Your task to perform on an android device: turn on translation in the chrome app Image 0: 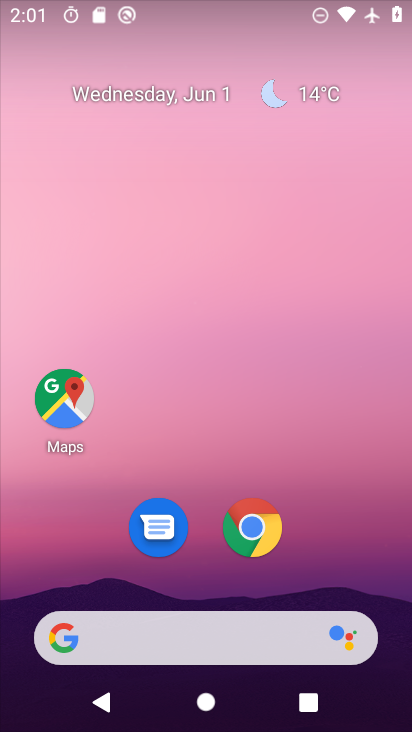
Step 0: drag from (201, 617) to (250, 31)
Your task to perform on an android device: turn on translation in the chrome app Image 1: 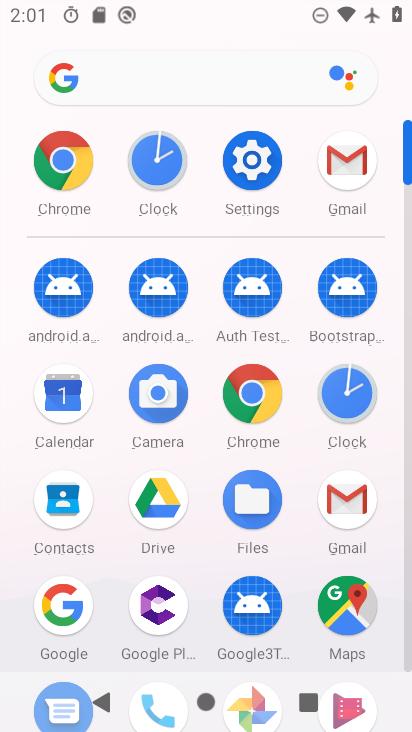
Step 1: click (75, 177)
Your task to perform on an android device: turn on translation in the chrome app Image 2: 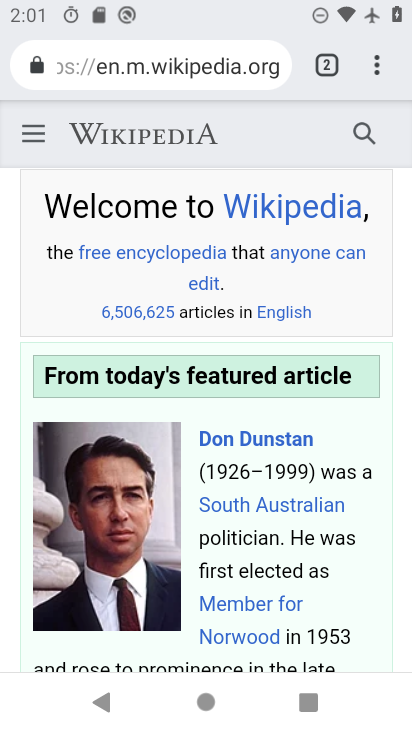
Step 2: click (379, 69)
Your task to perform on an android device: turn on translation in the chrome app Image 3: 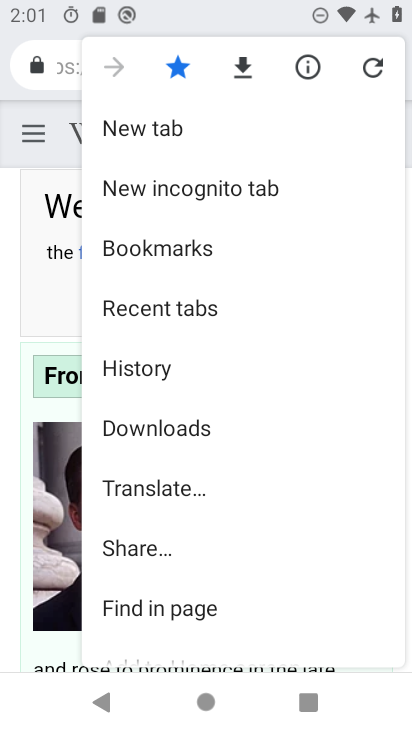
Step 3: click (172, 496)
Your task to perform on an android device: turn on translation in the chrome app Image 4: 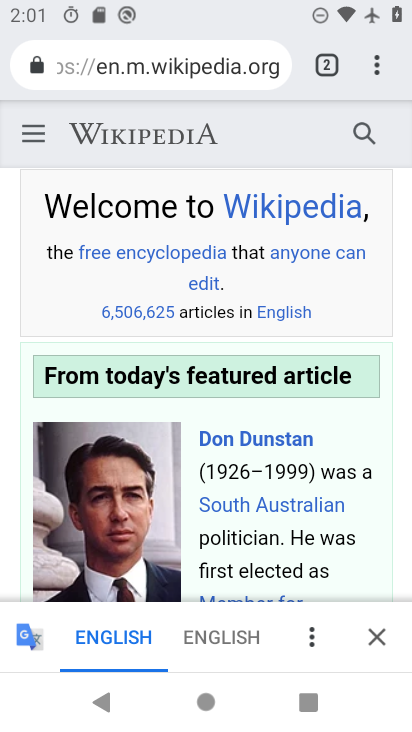
Step 4: click (319, 644)
Your task to perform on an android device: turn on translation in the chrome app Image 5: 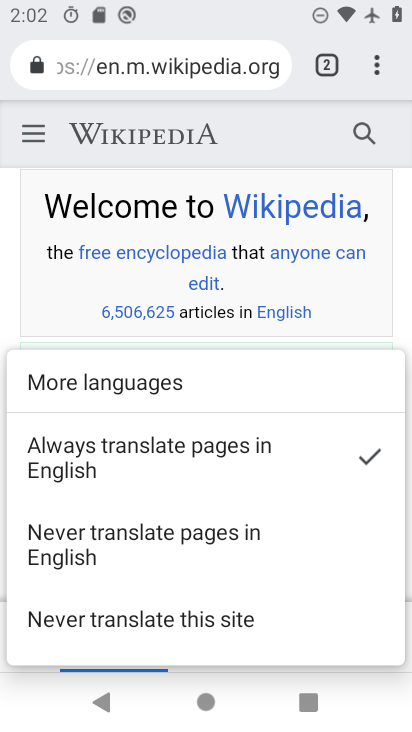
Step 5: task complete